Your task to perform on an android device: Open maps Image 0: 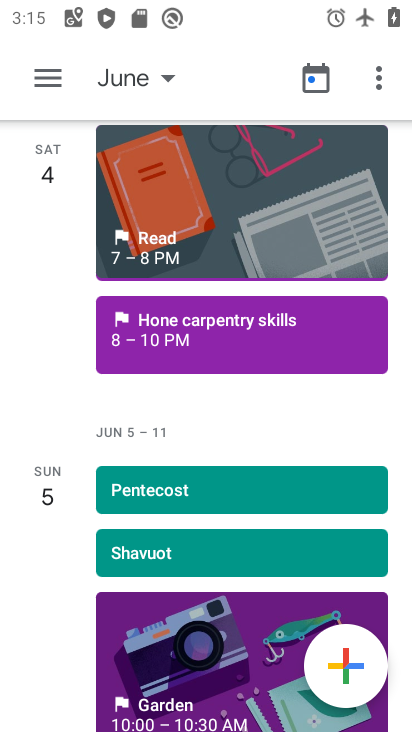
Step 0: press home button
Your task to perform on an android device: Open maps Image 1: 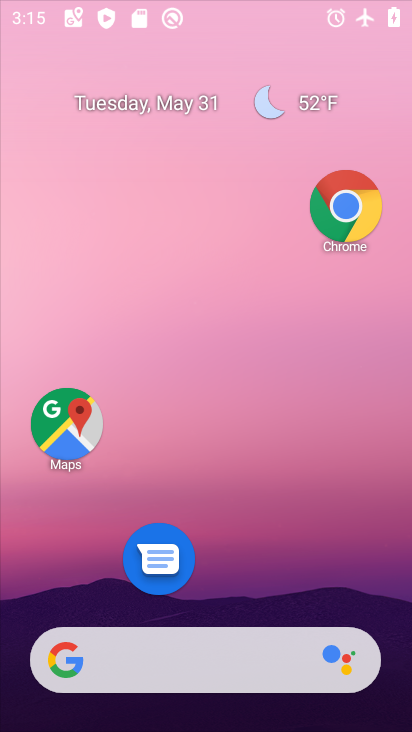
Step 1: drag from (238, 563) to (213, 251)
Your task to perform on an android device: Open maps Image 2: 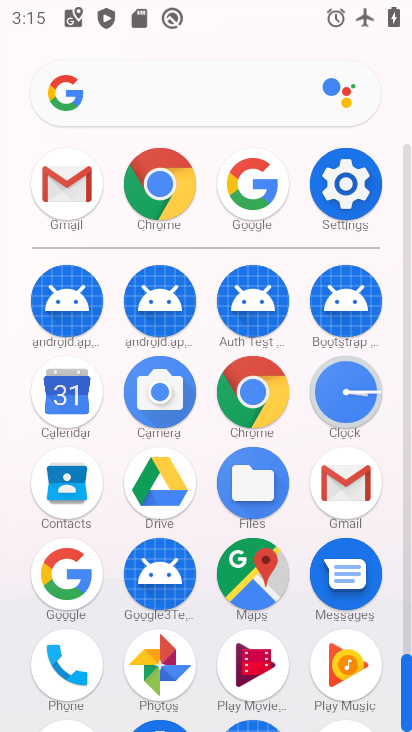
Step 2: click (264, 571)
Your task to perform on an android device: Open maps Image 3: 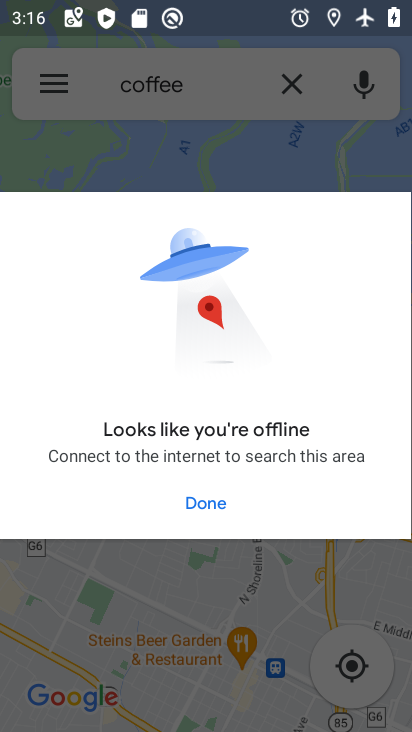
Step 3: click (196, 513)
Your task to perform on an android device: Open maps Image 4: 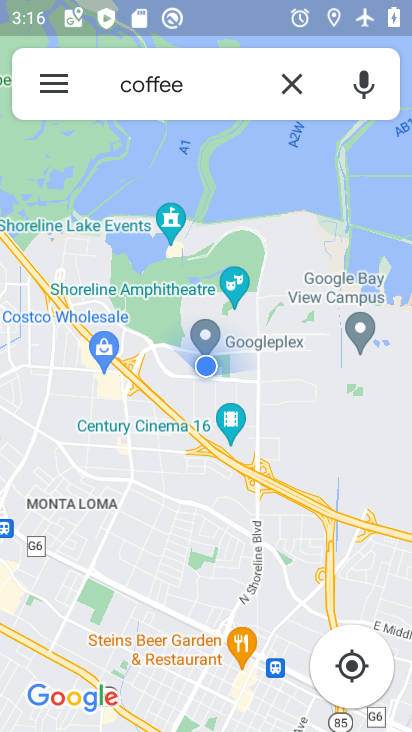
Step 4: task complete